Your task to perform on an android device: turn off airplane mode Image 0: 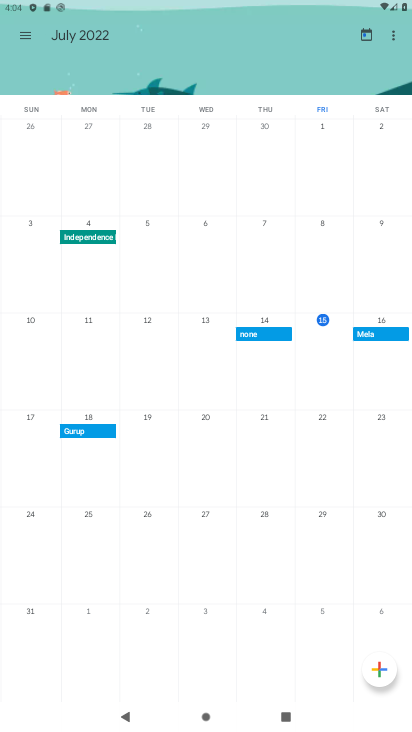
Step 0: press home button
Your task to perform on an android device: turn off airplane mode Image 1: 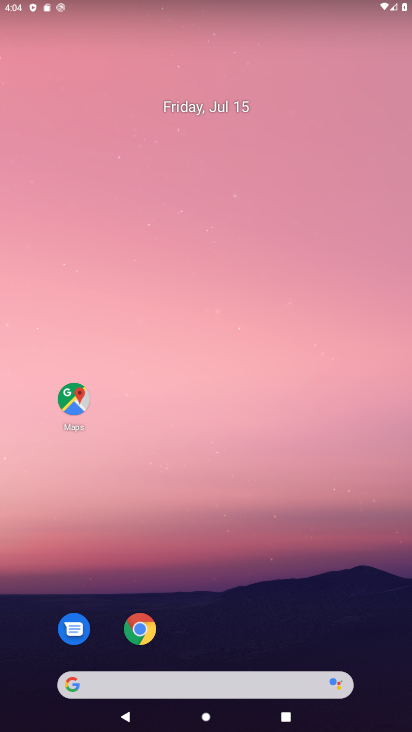
Step 1: drag from (201, 591) to (220, 39)
Your task to perform on an android device: turn off airplane mode Image 2: 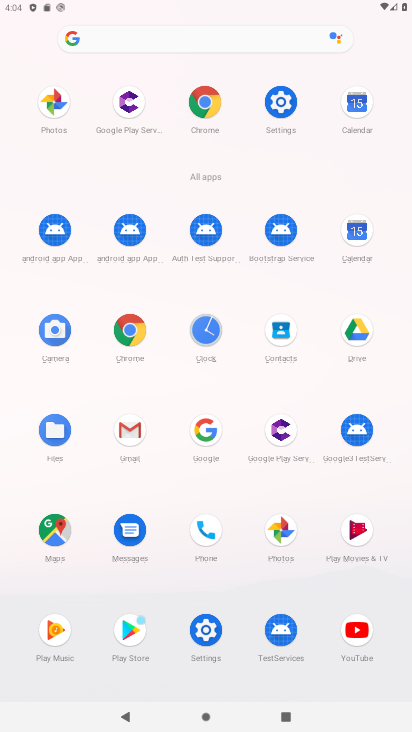
Step 2: click (278, 104)
Your task to perform on an android device: turn off airplane mode Image 3: 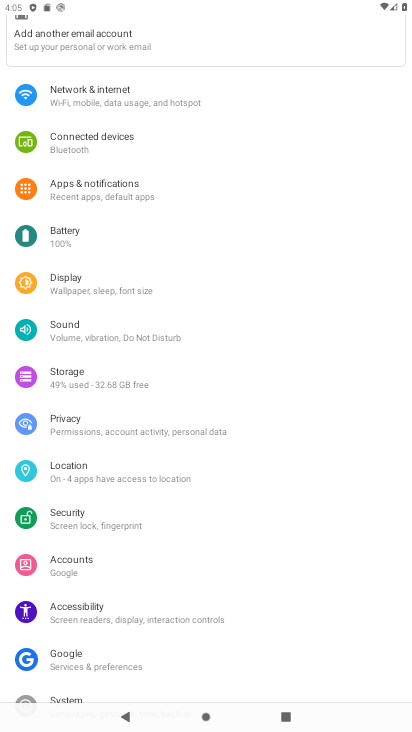
Step 3: click (167, 105)
Your task to perform on an android device: turn off airplane mode Image 4: 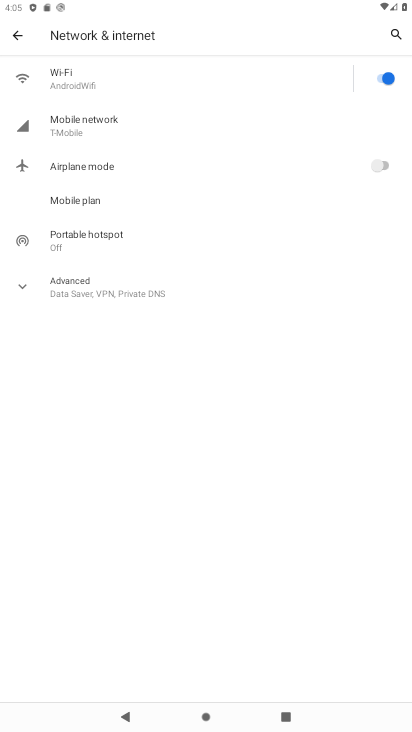
Step 4: task complete